Your task to perform on an android device: toggle notifications settings in the gmail app Image 0: 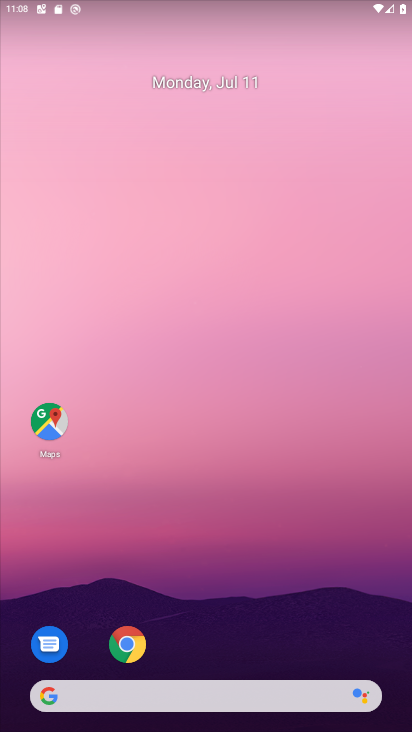
Step 0: drag from (252, 575) to (339, 5)
Your task to perform on an android device: toggle notifications settings in the gmail app Image 1: 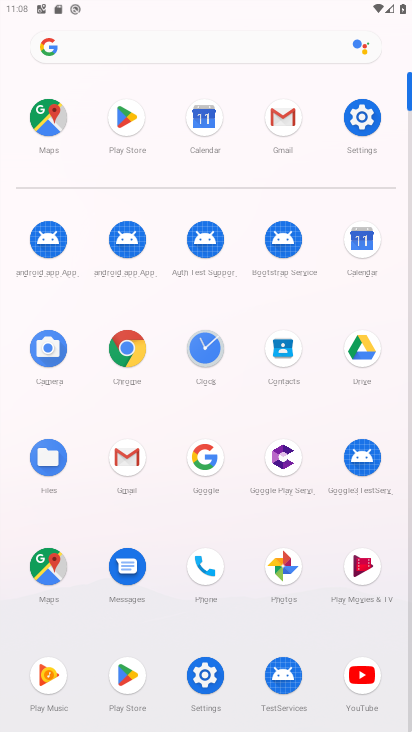
Step 1: click (285, 128)
Your task to perform on an android device: toggle notifications settings in the gmail app Image 2: 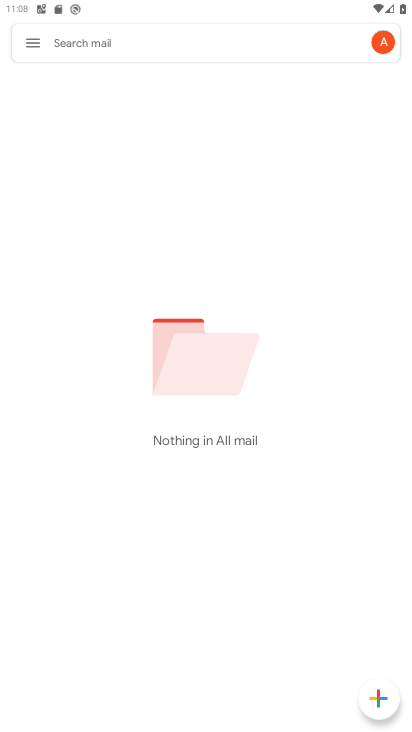
Step 2: click (34, 44)
Your task to perform on an android device: toggle notifications settings in the gmail app Image 3: 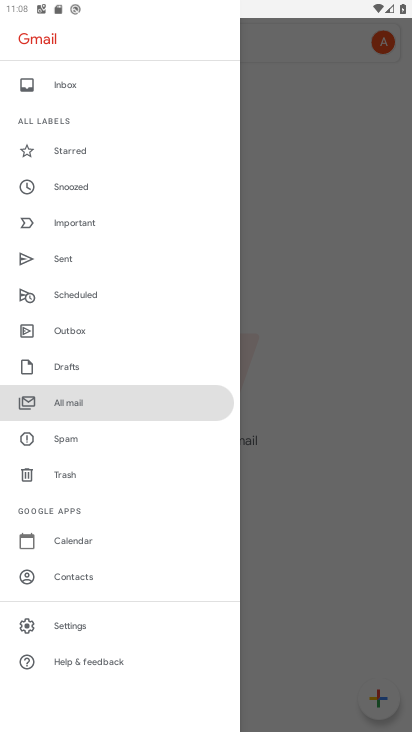
Step 3: click (81, 628)
Your task to perform on an android device: toggle notifications settings in the gmail app Image 4: 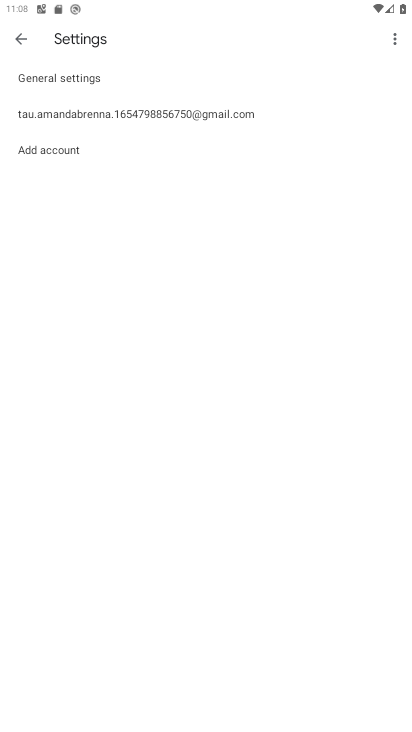
Step 4: click (249, 115)
Your task to perform on an android device: toggle notifications settings in the gmail app Image 5: 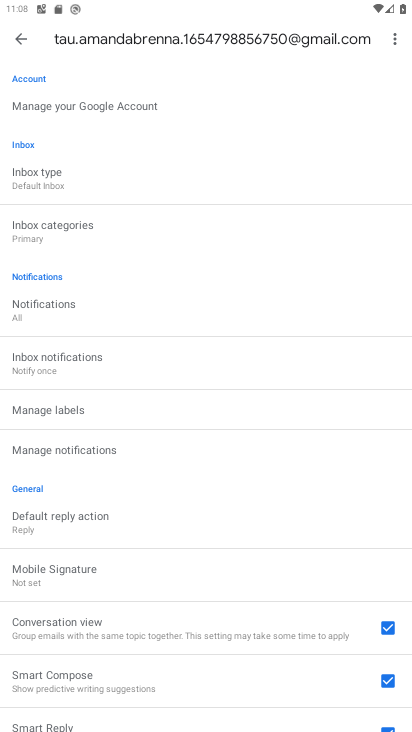
Step 5: click (95, 451)
Your task to perform on an android device: toggle notifications settings in the gmail app Image 6: 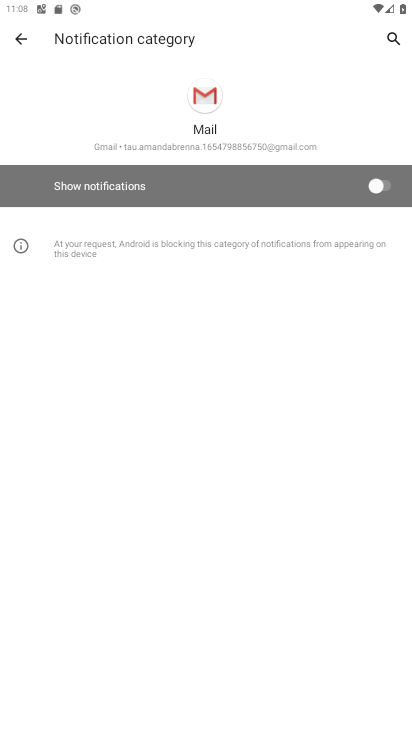
Step 6: click (384, 183)
Your task to perform on an android device: toggle notifications settings in the gmail app Image 7: 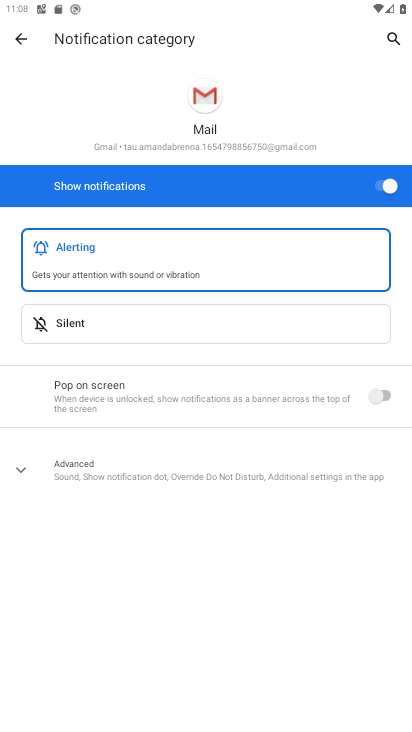
Step 7: task complete